Your task to perform on an android device: Open settings Image 0: 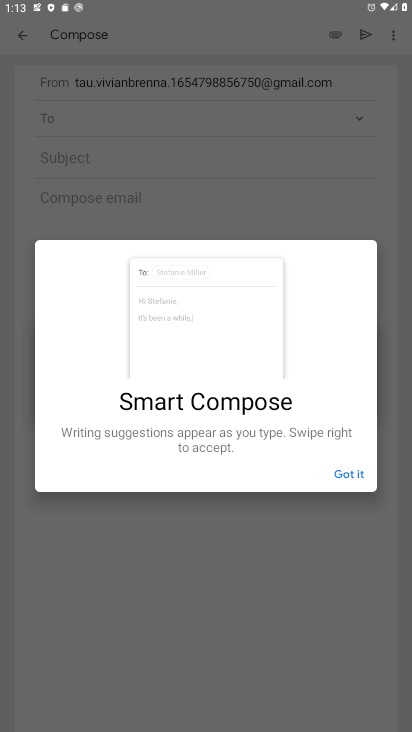
Step 0: press home button
Your task to perform on an android device: Open settings Image 1: 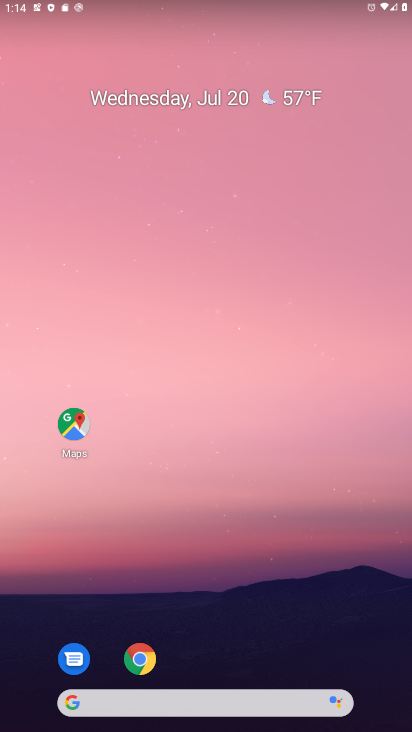
Step 1: drag from (208, 653) to (266, 177)
Your task to perform on an android device: Open settings Image 2: 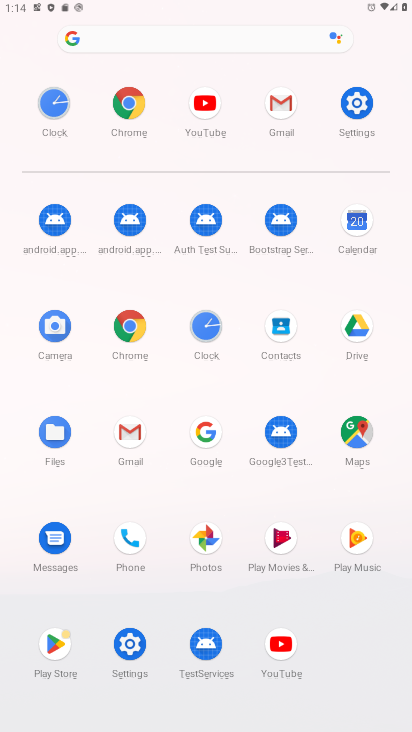
Step 2: click (129, 641)
Your task to perform on an android device: Open settings Image 3: 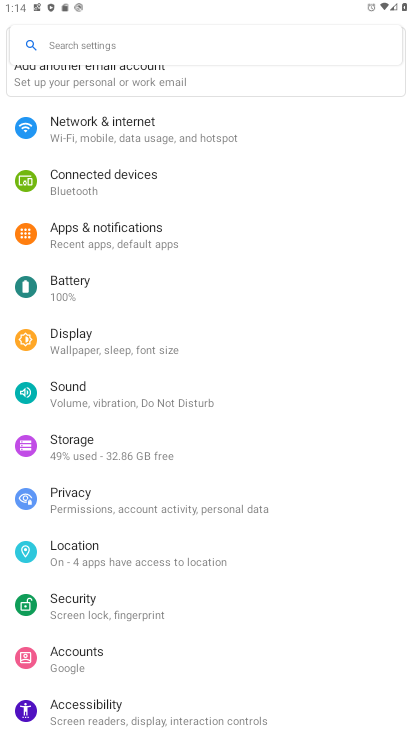
Step 3: task complete